Your task to perform on an android device: Search for seafood restaurants on Google Maps Image 0: 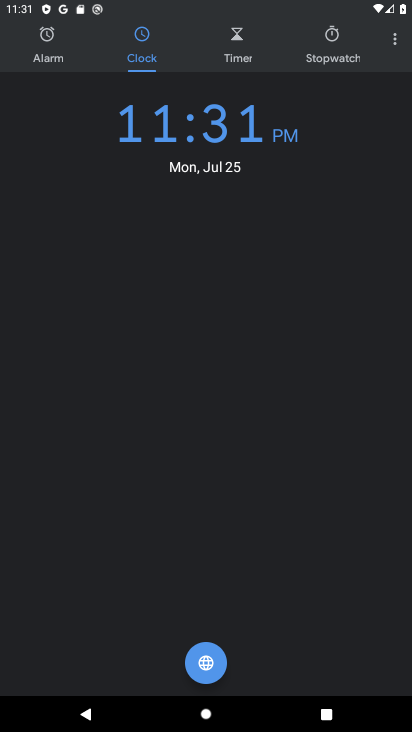
Step 0: press home button
Your task to perform on an android device: Search for seafood restaurants on Google Maps Image 1: 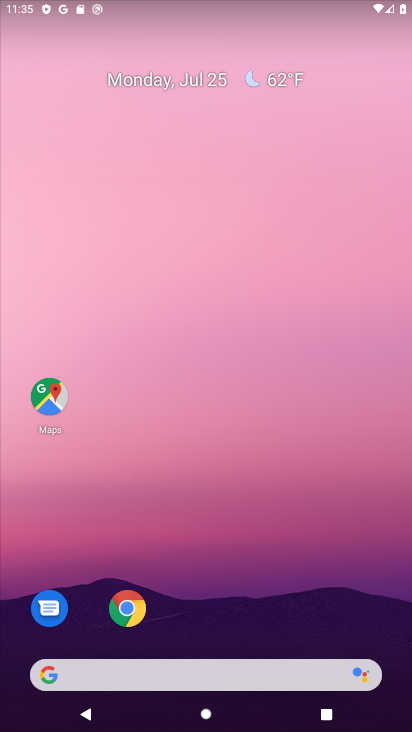
Step 1: click (39, 401)
Your task to perform on an android device: Search for seafood restaurants on Google Maps Image 2: 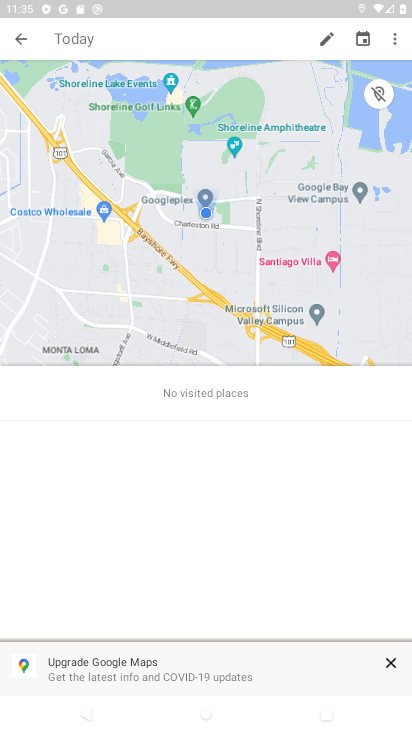
Step 2: click (17, 43)
Your task to perform on an android device: Search for seafood restaurants on Google Maps Image 3: 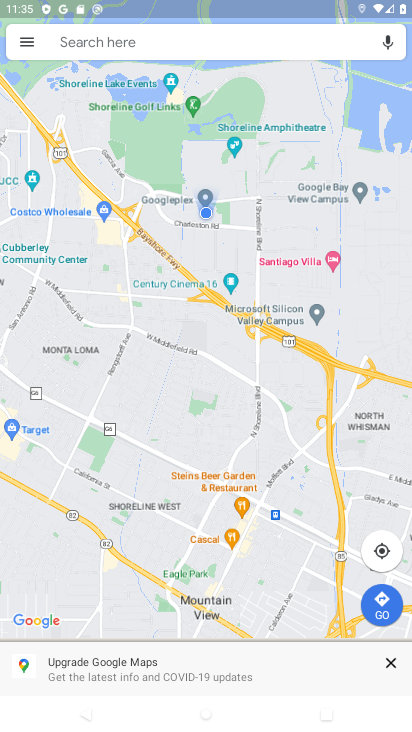
Step 3: click (97, 42)
Your task to perform on an android device: Search for seafood restaurants on Google Maps Image 4: 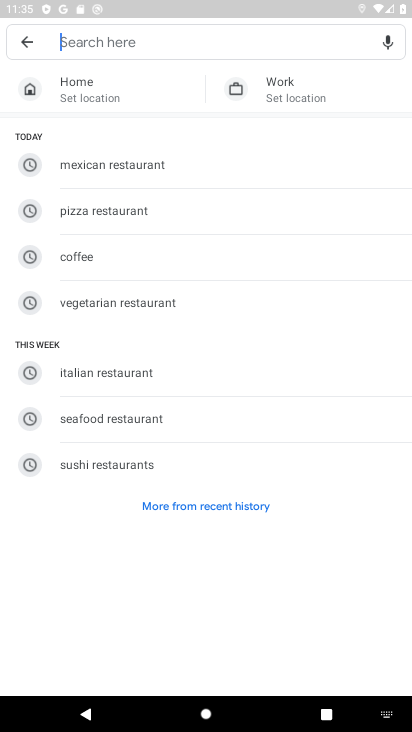
Step 4: type "seafood restaurants "
Your task to perform on an android device: Search for seafood restaurants on Google Maps Image 5: 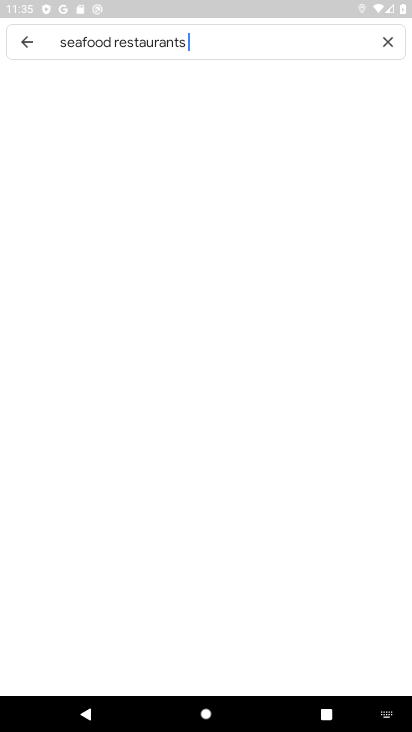
Step 5: press enter
Your task to perform on an android device: Search for seafood restaurants on Google Maps Image 6: 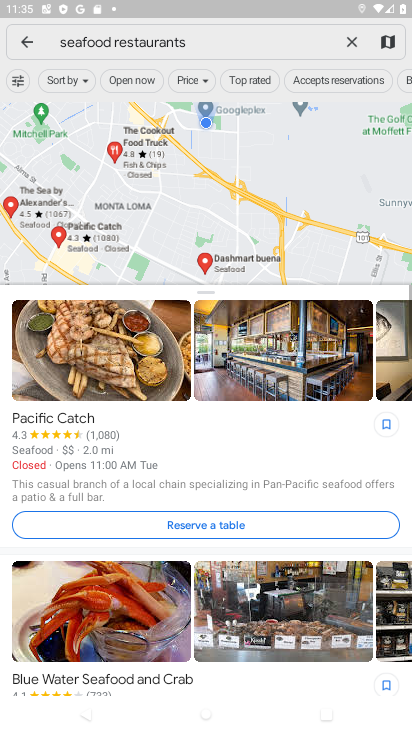
Step 6: task complete